Your task to perform on an android device: Show me popular videos on Youtube Image 0: 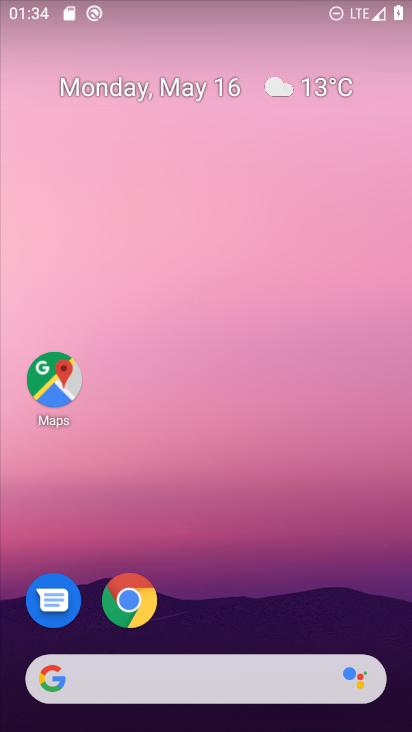
Step 0: drag from (224, 632) to (242, 3)
Your task to perform on an android device: Show me popular videos on Youtube Image 1: 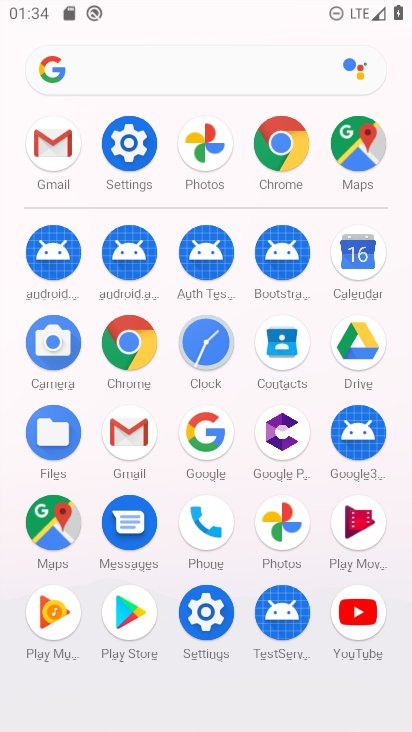
Step 1: click (355, 608)
Your task to perform on an android device: Show me popular videos on Youtube Image 2: 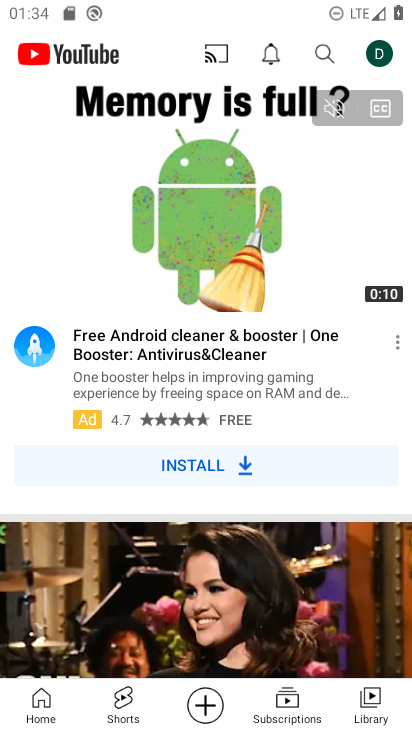
Step 2: drag from (186, 654) to (199, 110)
Your task to perform on an android device: Show me popular videos on Youtube Image 3: 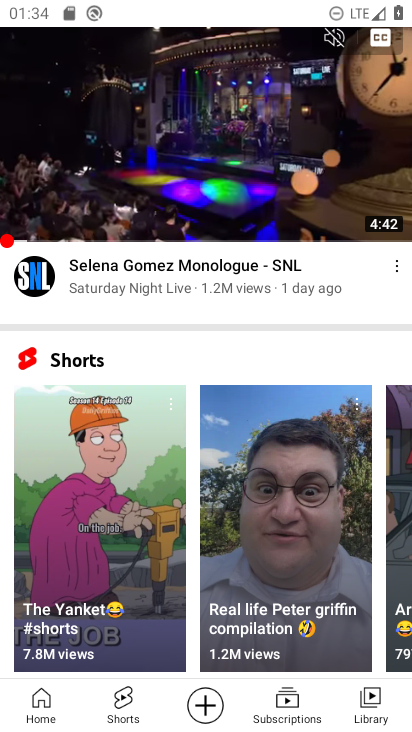
Step 3: drag from (205, 346) to (188, 584)
Your task to perform on an android device: Show me popular videos on Youtube Image 4: 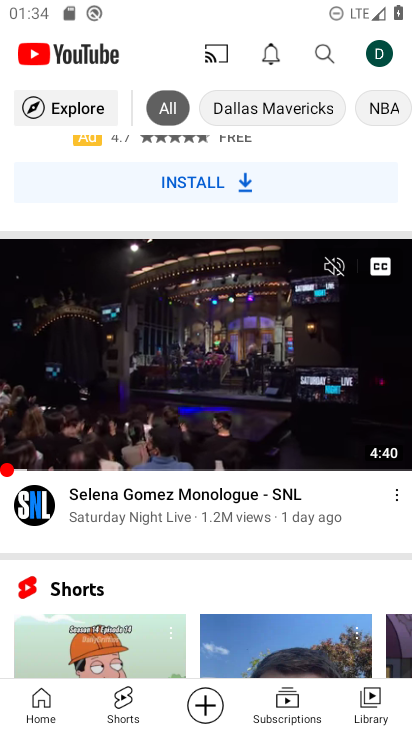
Step 4: click (85, 104)
Your task to perform on an android device: Show me popular videos on Youtube Image 5: 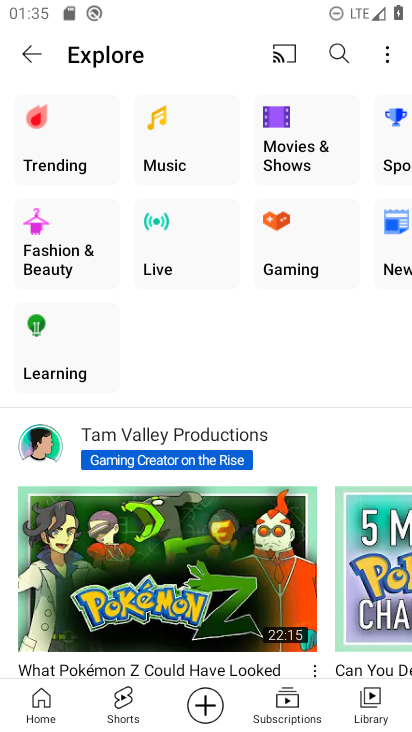
Step 5: click (51, 142)
Your task to perform on an android device: Show me popular videos on Youtube Image 6: 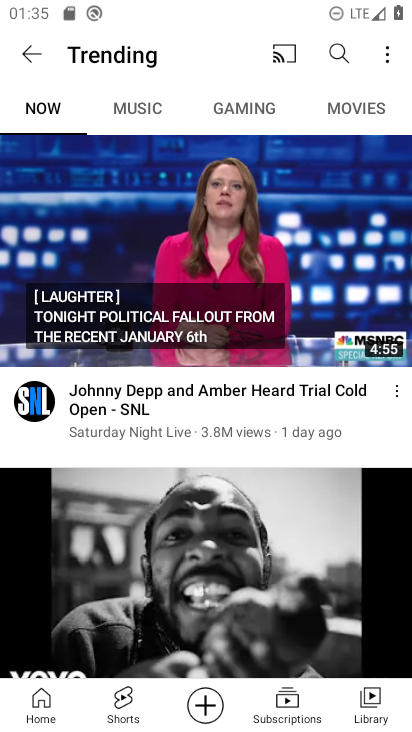
Step 6: task complete